Your task to perform on an android device: find which apps use the phone's location Image 0: 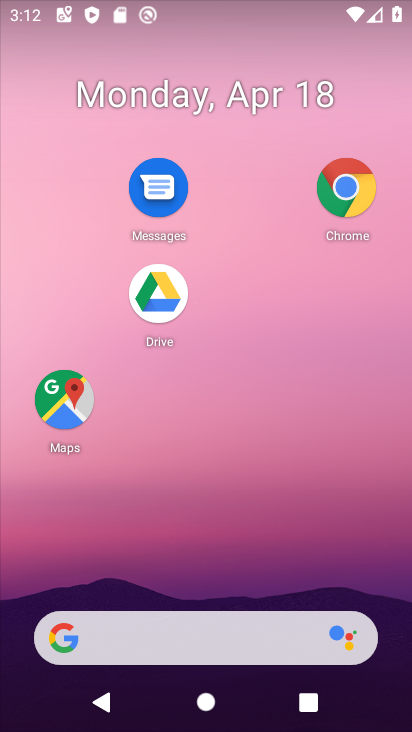
Step 0: drag from (233, 560) to (253, 179)
Your task to perform on an android device: find which apps use the phone's location Image 1: 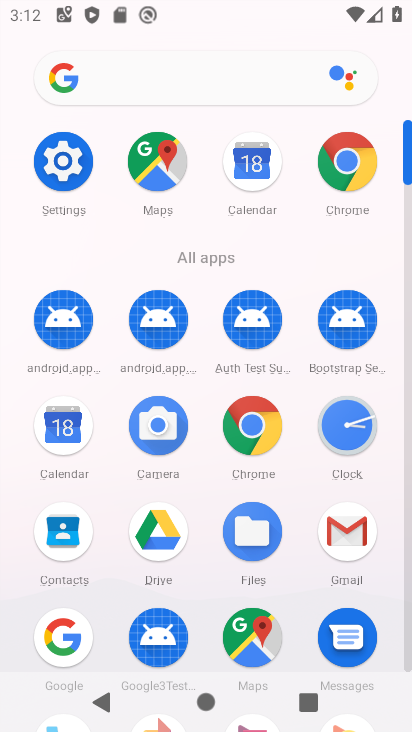
Step 1: click (65, 170)
Your task to perform on an android device: find which apps use the phone's location Image 2: 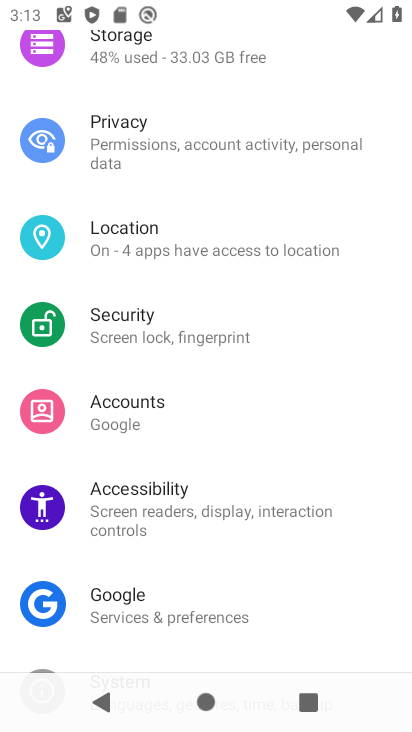
Step 2: click (130, 238)
Your task to perform on an android device: find which apps use the phone's location Image 3: 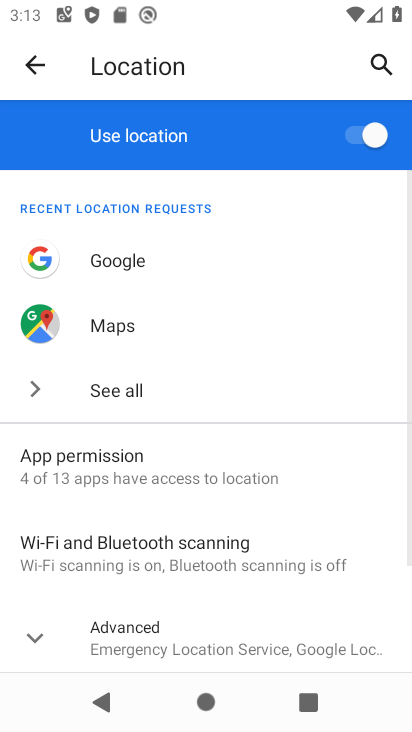
Step 3: click (123, 456)
Your task to perform on an android device: find which apps use the phone's location Image 4: 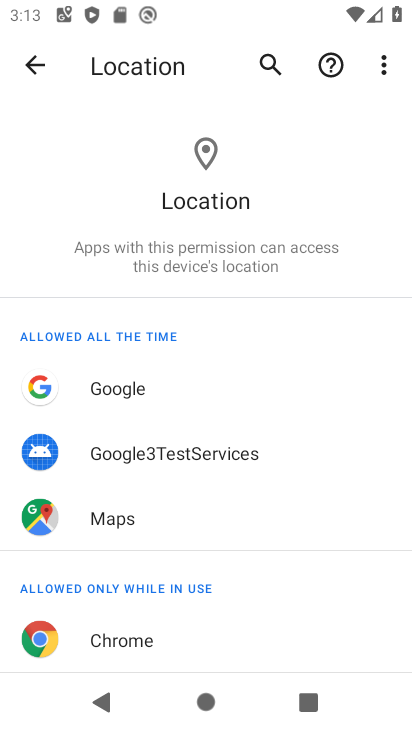
Step 4: click (110, 517)
Your task to perform on an android device: find which apps use the phone's location Image 5: 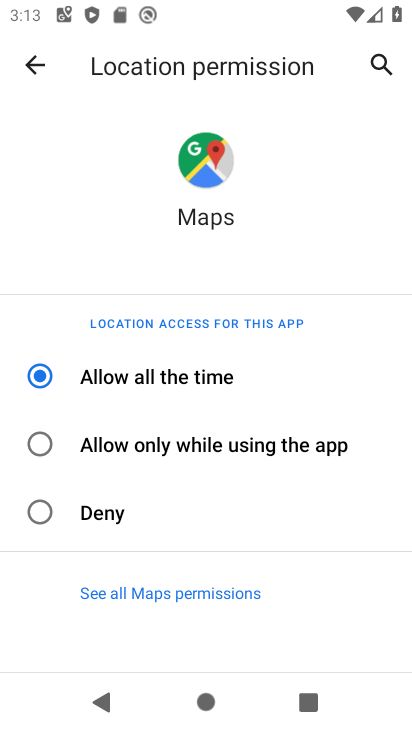
Step 5: task complete